Your task to perform on an android device: Open notification settings Image 0: 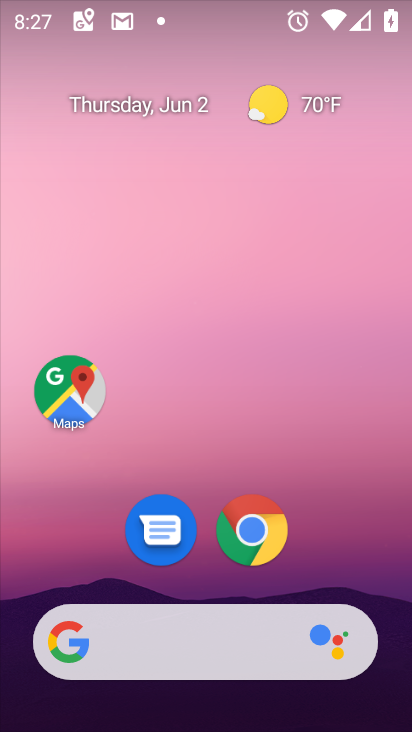
Step 0: click (239, 208)
Your task to perform on an android device: Open notification settings Image 1: 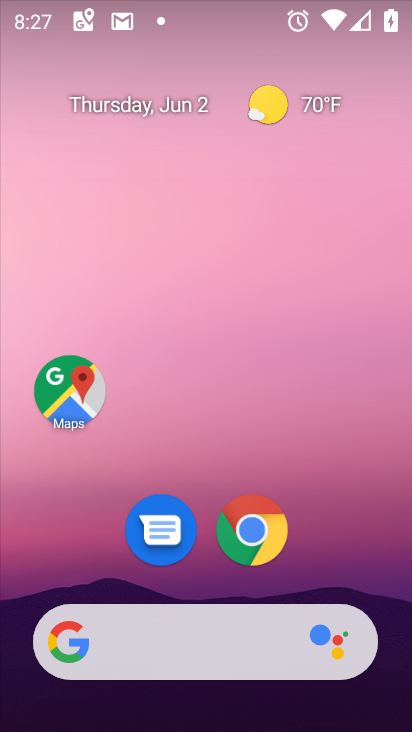
Step 1: drag from (178, 603) to (178, 73)
Your task to perform on an android device: Open notification settings Image 2: 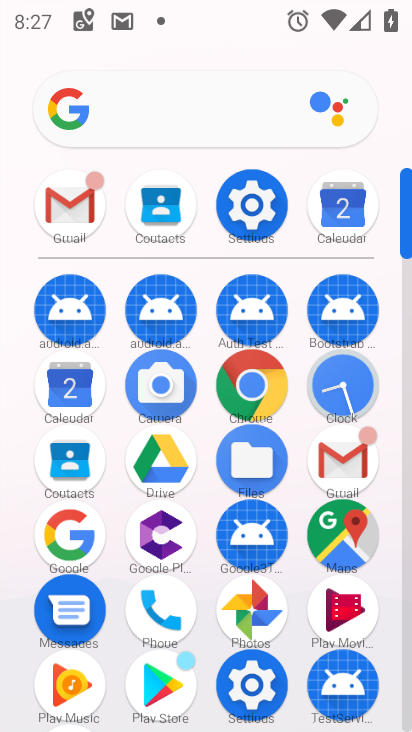
Step 2: click (261, 215)
Your task to perform on an android device: Open notification settings Image 3: 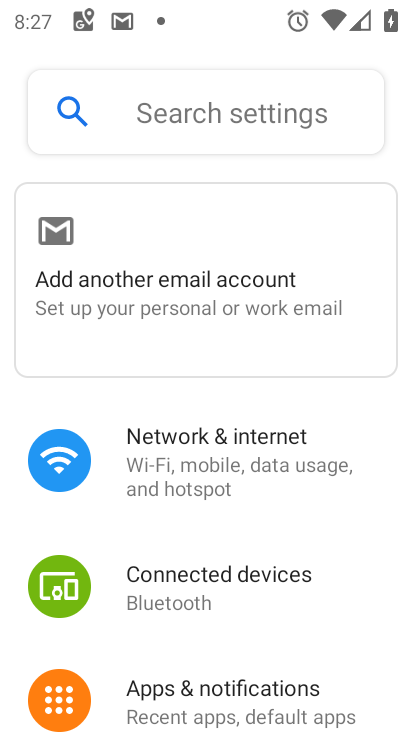
Step 3: click (242, 695)
Your task to perform on an android device: Open notification settings Image 4: 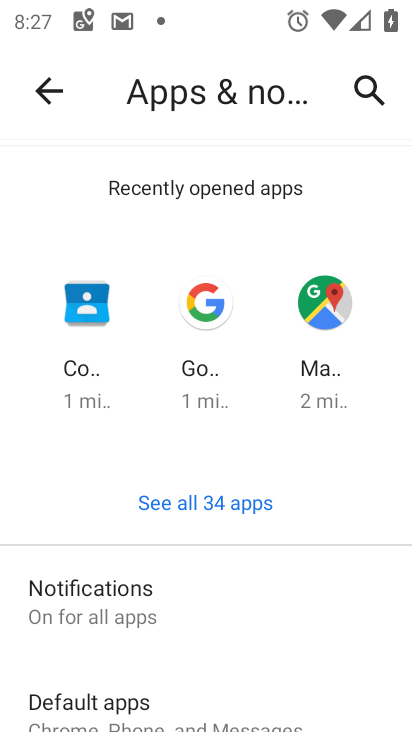
Step 4: drag from (268, 653) to (259, 322)
Your task to perform on an android device: Open notification settings Image 5: 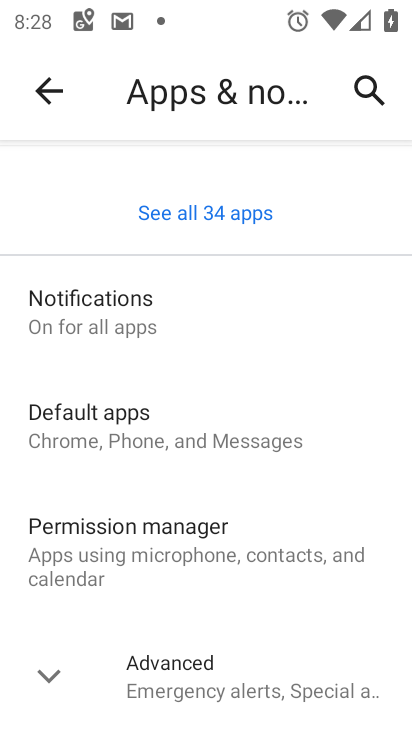
Step 5: click (230, 692)
Your task to perform on an android device: Open notification settings Image 6: 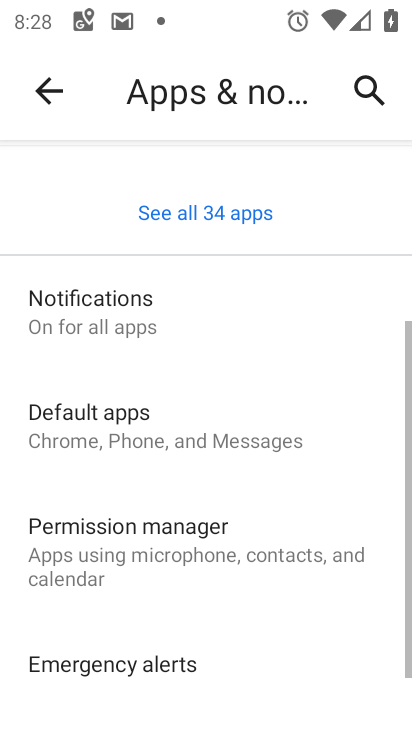
Step 6: task complete